Your task to perform on an android device: turn on the 12-hour format for clock Image 0: 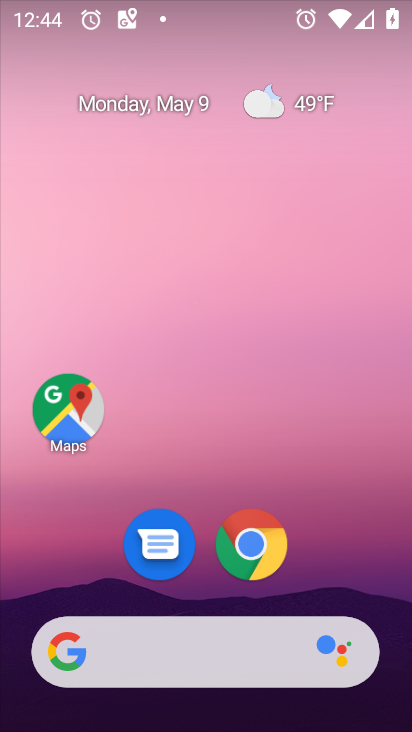
Step 0: drag from (220, 656) to (188, 103)
Your task to perform on an android device: turn on the 12-hour format for clock Image 1: 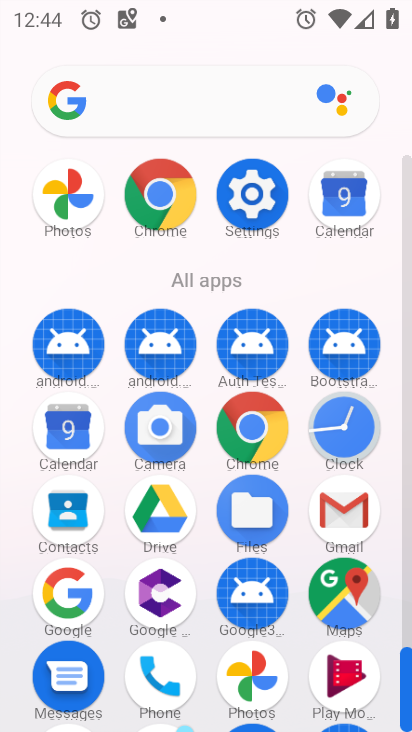
Step 1: click (256, 211)
Your task to perform on an android device: turn on the 12-hour format for clock Image 2: 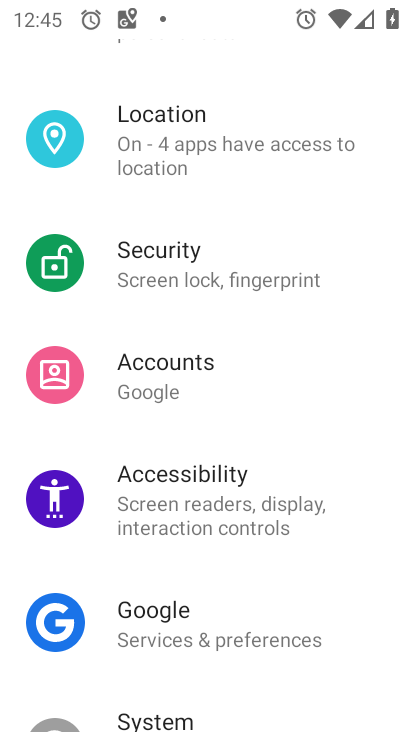
Step 2: drag from (270, 585) to (277, 33)
Your task to perform on an android device: turn on the 12-hour format for clock Image 3: 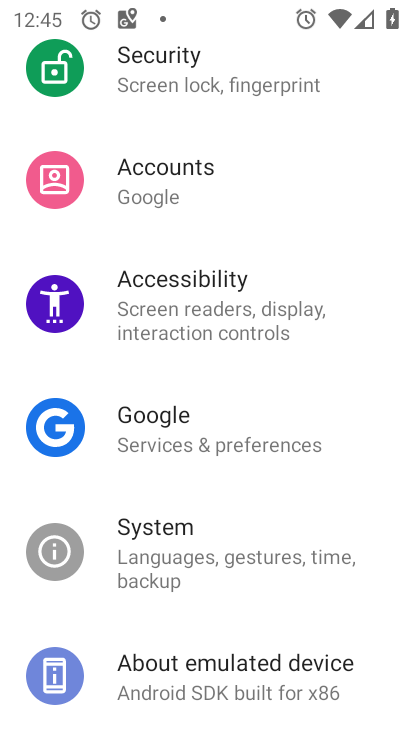
Step 3: click (193, 548)
Your task to perform on an android device: turn on the 12-hour format for clock Image 4: 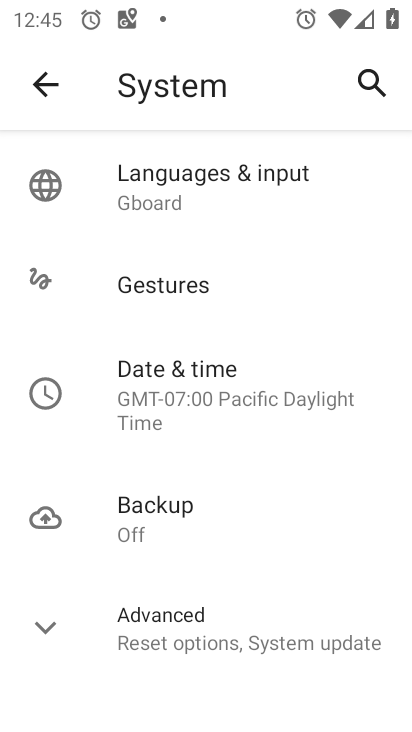
Step 4: click (181, 405)
Your task to perform on an android device: turn on the 12-hour format for clock Image 5: 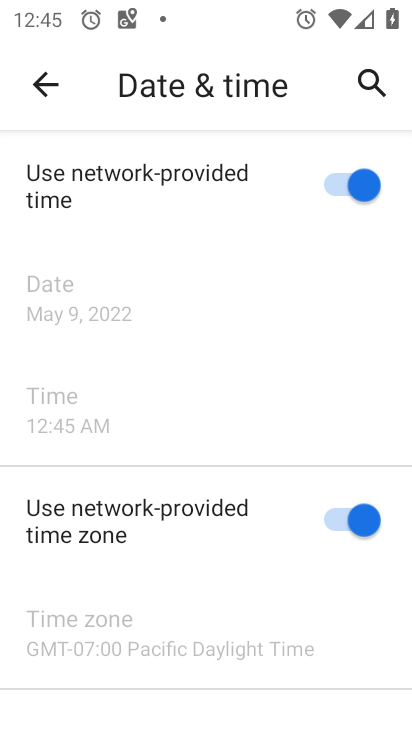
Step 5: task complete